Your task to perform on an android device: Go to location settings Image 0: 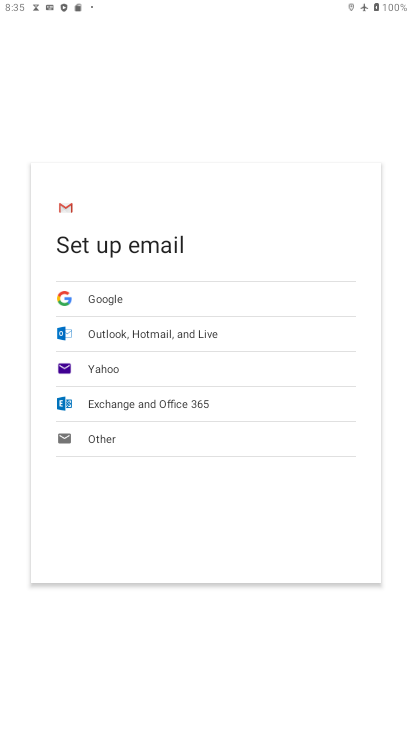
Step 0: press back button
Your task to perform on an android device: Go to location settings Image 1: 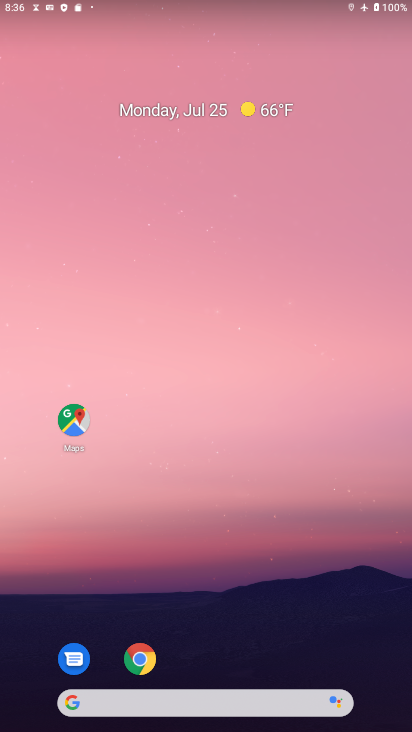
Step 1: drag from (251, 550) to (282, 203)
Your task to perform on an android device: Go to location settings Image 2: 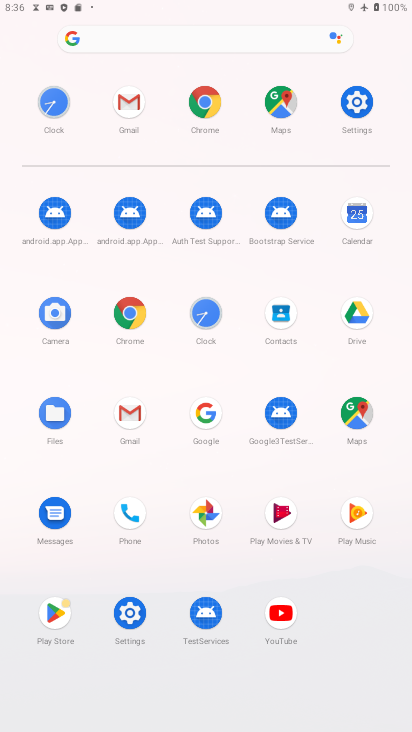
Step 2: drag from (234, 476) to (224, 53)
Your task to perform on an android device: Go to location settings Image 3: 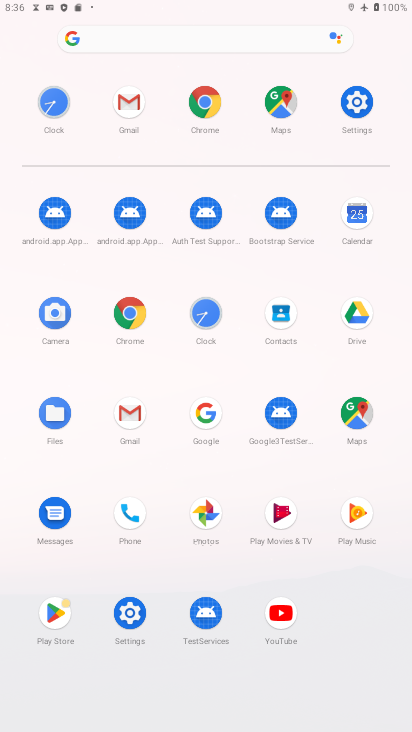
Step 3: click (360, 100)
Your task to perform on an android device: Go to location settings Image 4: 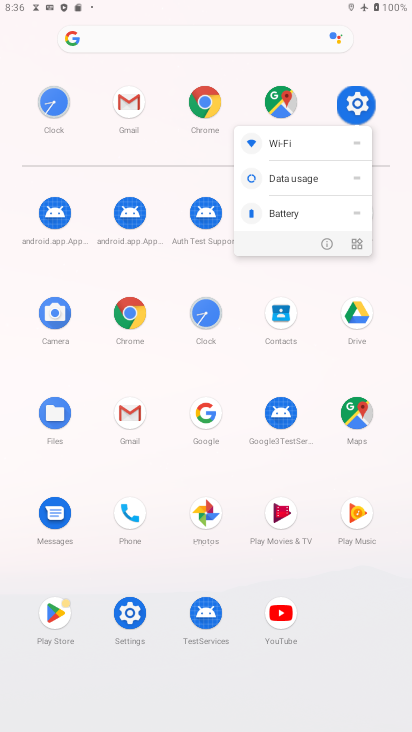
Step 4: click (355, 104)
Your task to perform on an android device: Go to location settings Image 5: 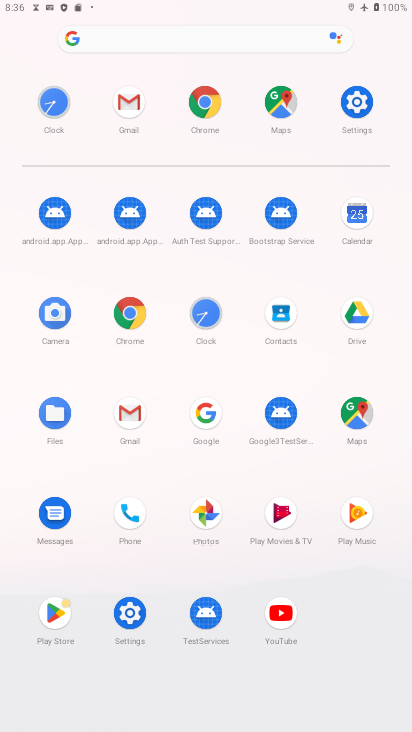
Step 5: click (351, 95)
Your task to perform on an android device: Go to location settings Image 6: 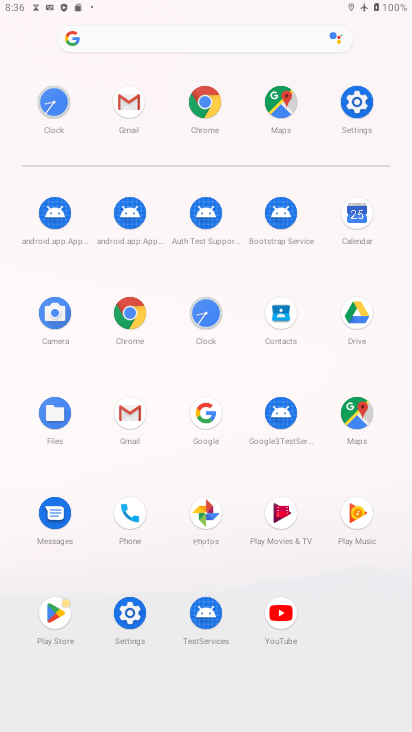
Step 6: click (352, 94)
Your task to perform on an android device: Go to location settings Image 7: 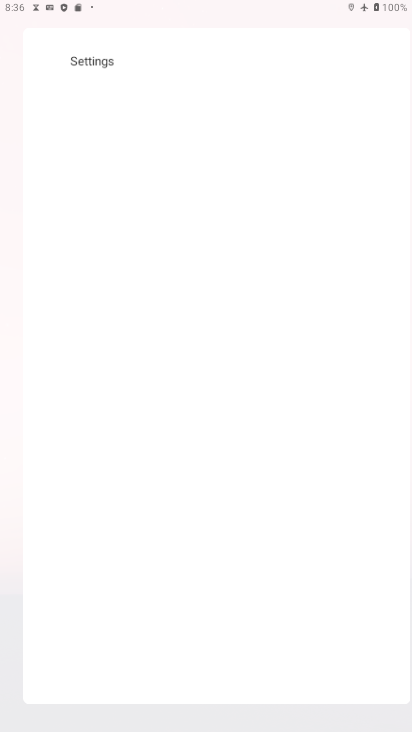
Step 7: click (356, 99)
Your task to perform on an android device: Go to location settings Image 8: 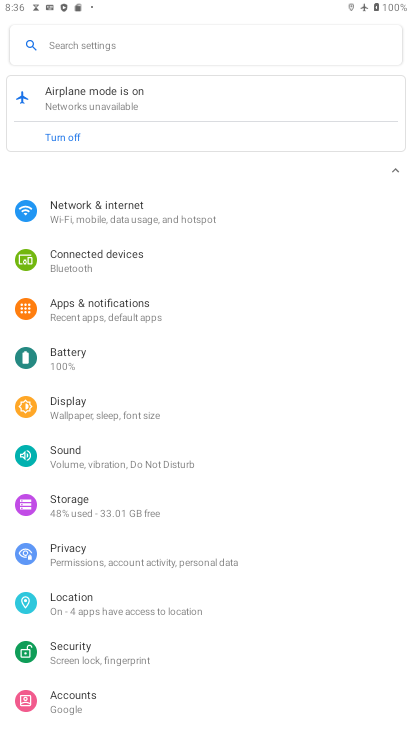
Step 8: click (75, 597)
Your task to perform on an android device: Go to location settings Image 9: 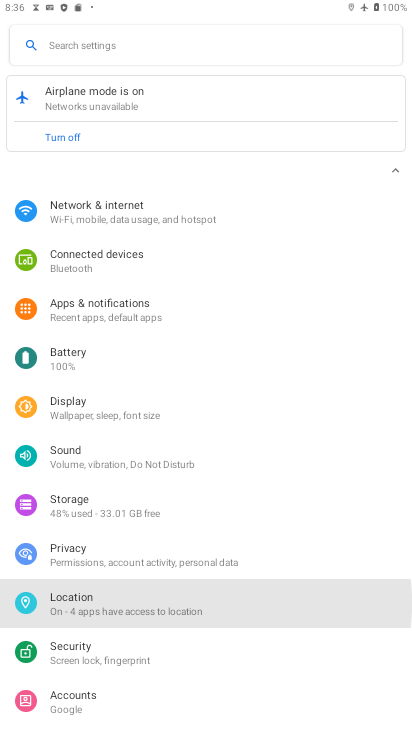
Step 9: click (75, 597)
Your task to perform on an android device: Go to location settings Image 10: 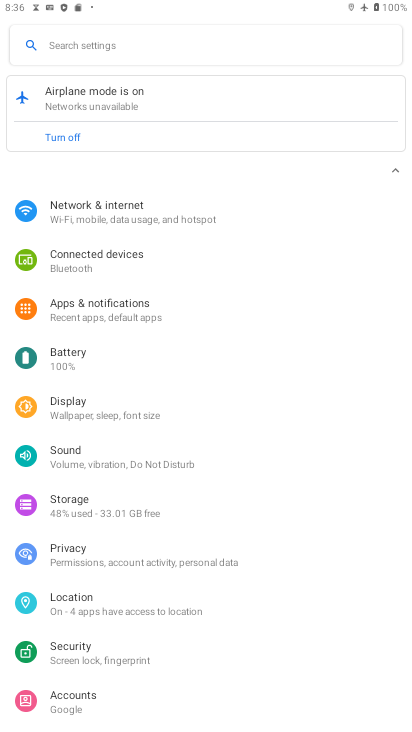
Step 10: click (79, 599)
Your task to perform on an android device: Go to location settings Image 11: 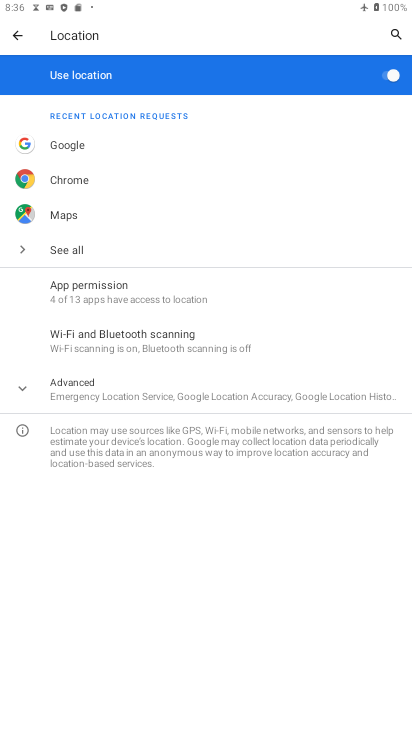
Step 11: click (72, 394)
Your task to perform on an android device: Go to location settings Image 12: 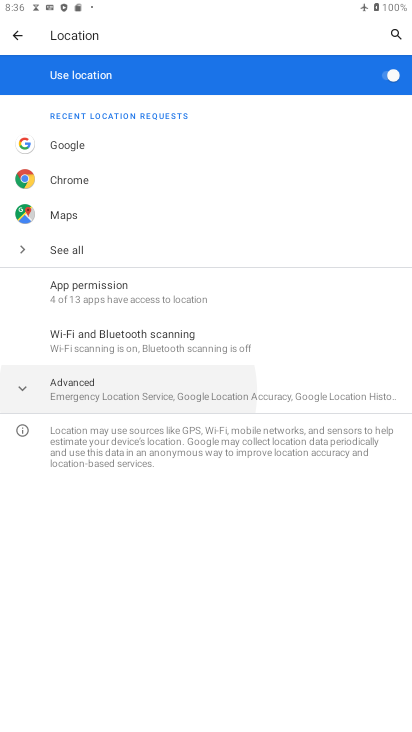
Step 12: click (76, 394)
Your task to perform on an android device: Go to location settings Image 13: 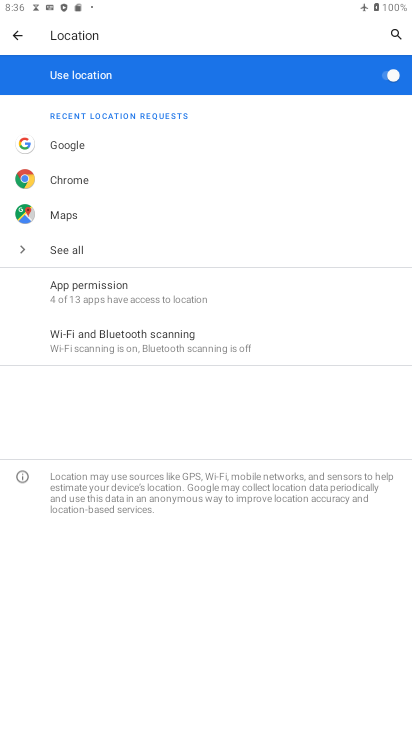
Step 13: click (79, 398)
Your task to perform on an android device: Go to location settings Image 14: 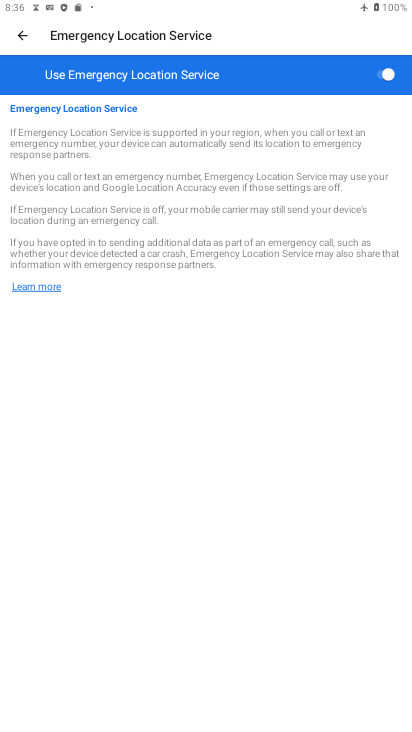
Step 14: click (12, 33)
Your task to perform on an android device: Go to location settings Image 15: 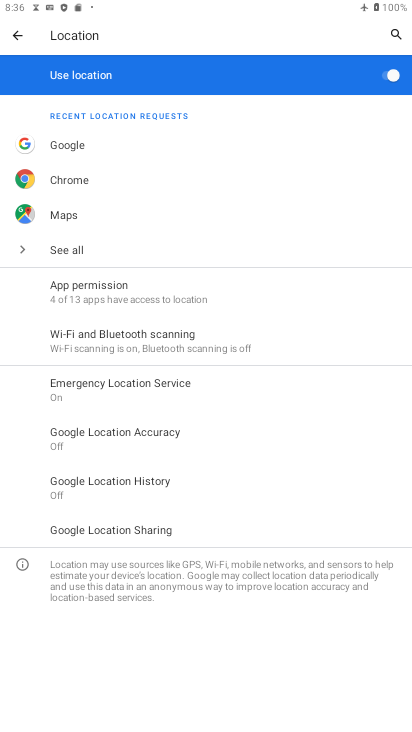
Step 15: task complete